Your task to perform on an android device: Open the calendar app, open the side menu, and click the "Day" option Image 0: 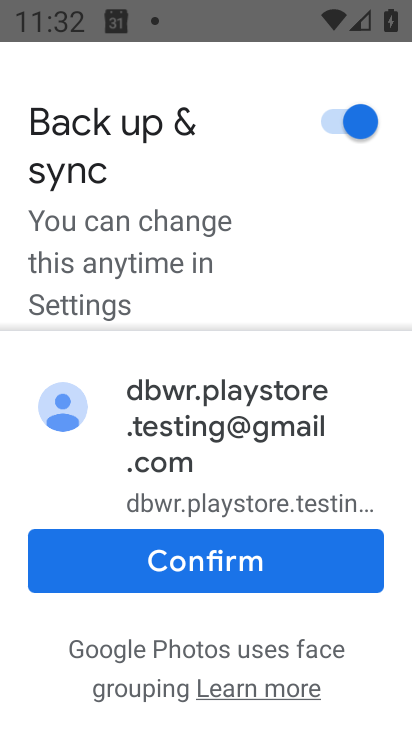
Step 0: press home button
Your task to perform on an android device: Open the calendar app, open the side menu, and click the "Day" option Image 1: 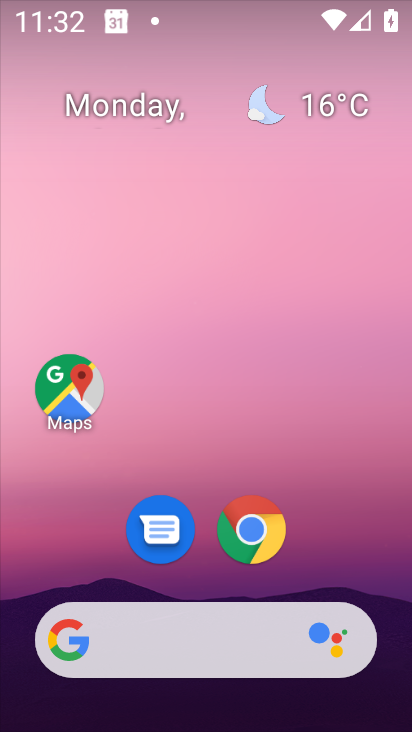
Step 1: drag from (197, 550) to (67, 410)
Your task to perform on an android device: Open the calendar app, open the side menu, and click the "Day" option Image 2: 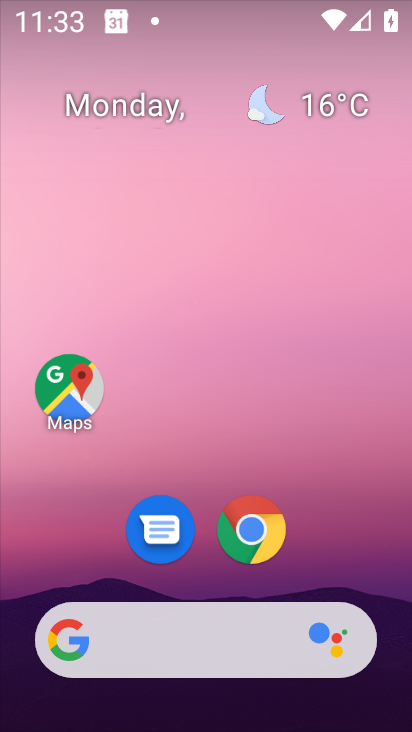
Step 2: drag from (195, 523) to (271, 56)
Your task to perform on an android device: Open the calendar app, open the side menu, and click the "Day" option Image 3: 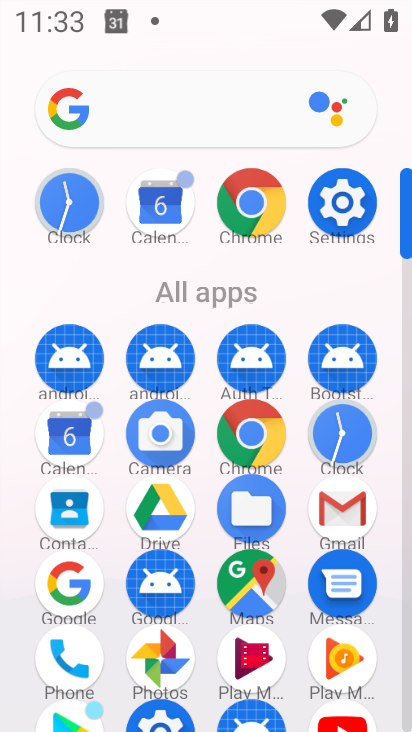
Step 3: click (56, 437)
Your task to perform on an android device: Open the calendar app, open the side menu, and click the "Day" option Image 4: 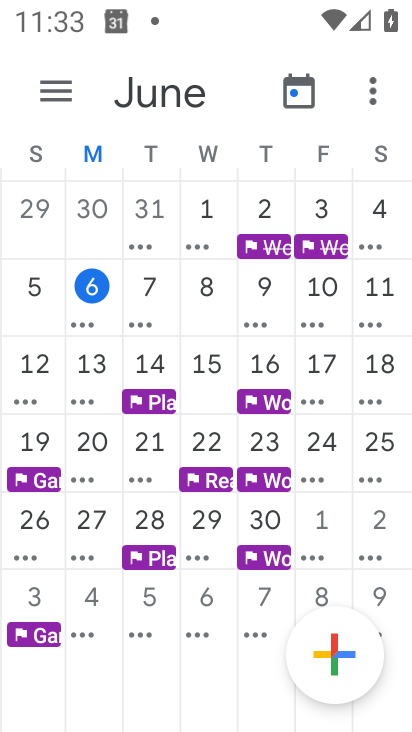
Step 4: click (67, 94)
Your task to perform on an android device: Open the calendar app, open the side menu, and click the "Day" option Image 5: 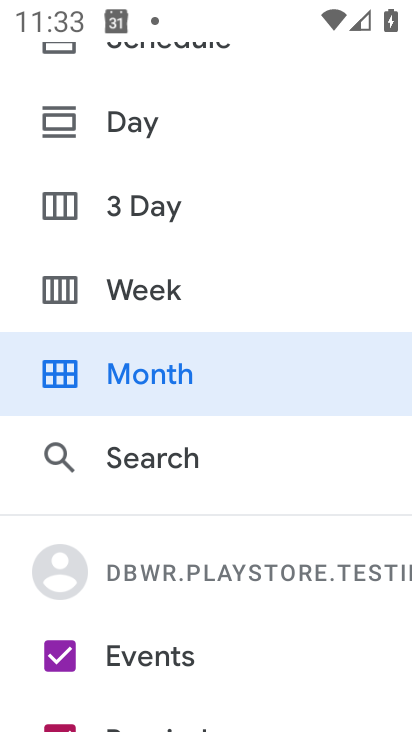
Step 5: click (184, 145)
Your task to perform on an android device: Open the calendar app, open the side menu, and click the "Day" option Image 6: 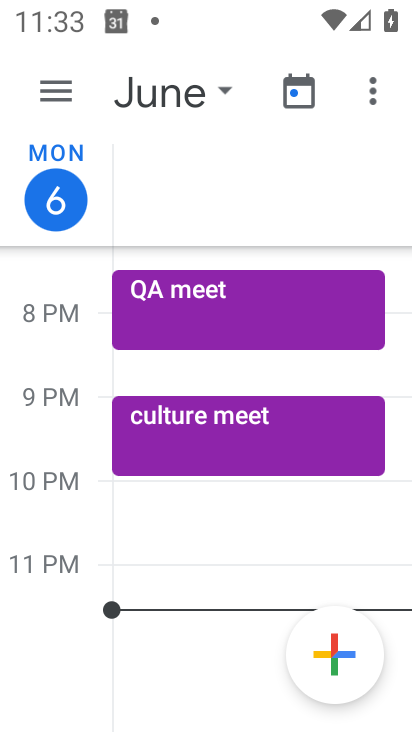
Step 6: task complete